Your task to perform on an android device: Open battery settings Image 0: 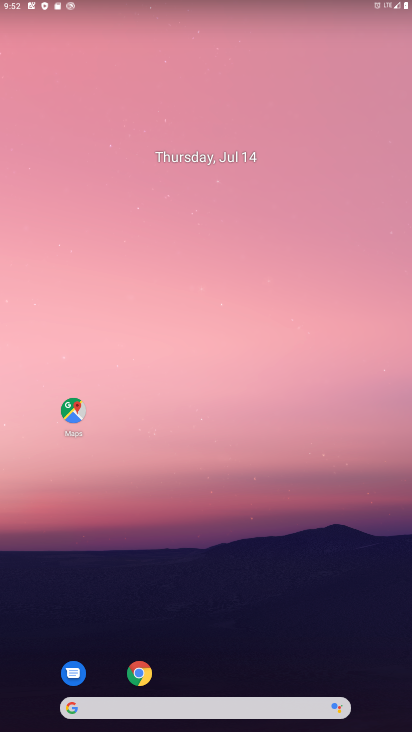
Step 0: drag from (217, 700) to (269, 317)
Your task to perform on an android device: Open battery settings Image 1: 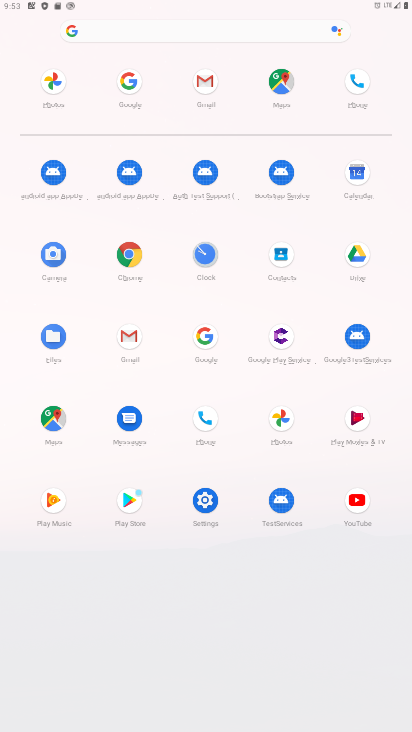
Step 1: click (206, 498)
Your task to perform on an android device: Open battery settings Image 2: 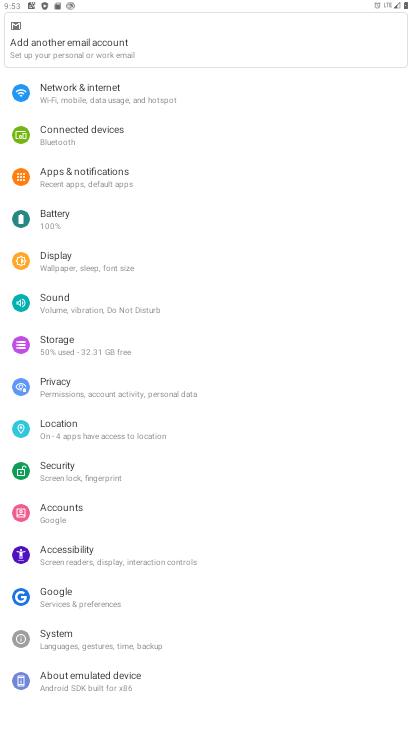
Step 2: click (56, 215)
Your task to perform on an android device: Open battery settings Image 3: 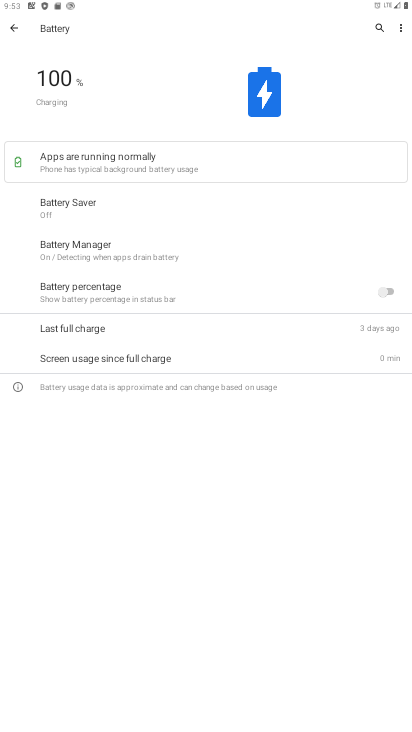
Step 3: task complete